Your task to perform on an android device: Open Chrome and go to the settings page Image 0: 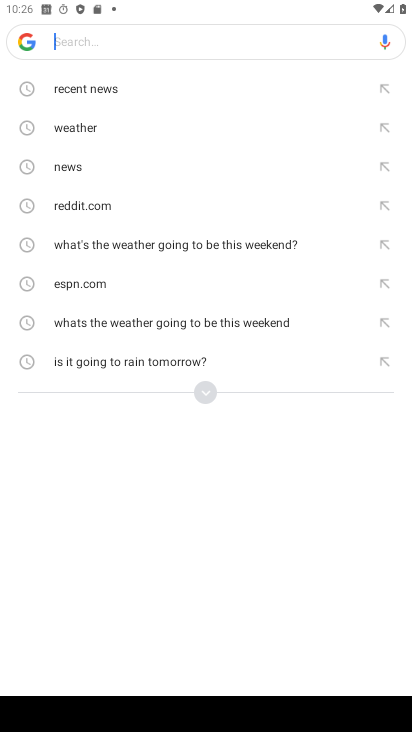
Step 0: press home button
Your task to perform on an android device: Open Chrome and go to the settings page Image 1: 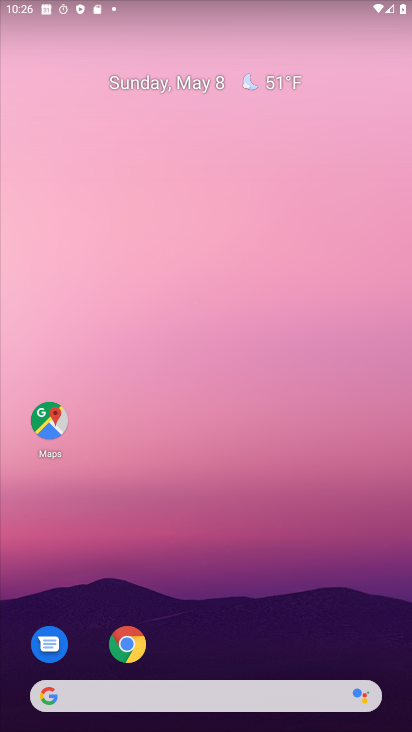
Step 1: click (133, 648)
Your task to perform on an android device: Open Chrome and go to the settings page Image 2: 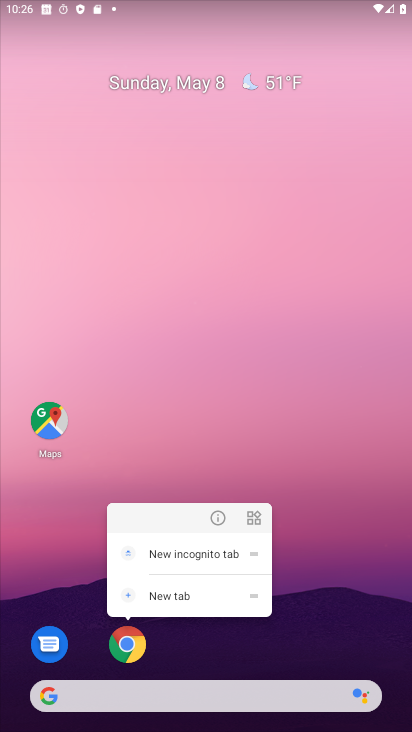
Step 2: click (213, 509)
Your task to perform on an android device: Open Chrome and go to the settings page Image 3: 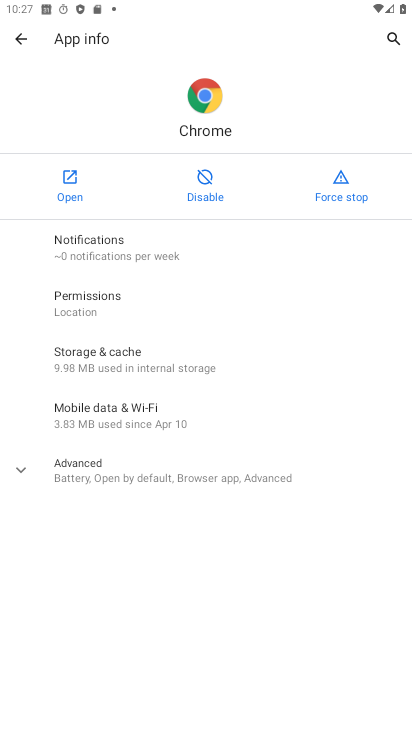
Step 3: click (71, 181)
Your task to perform on an android device: Open Chrome and go to the settings page Image 4: 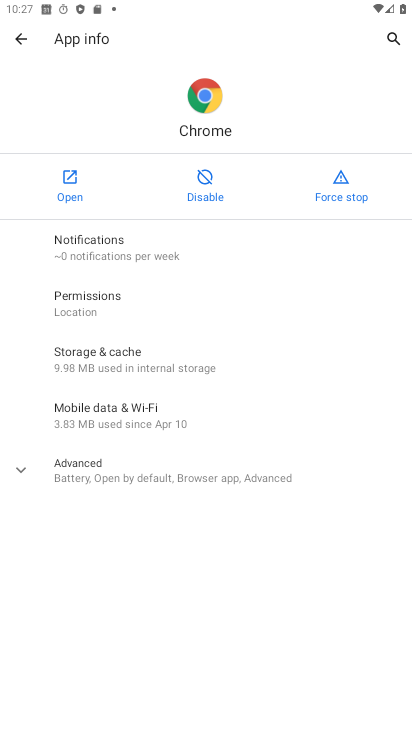
Step 4: click (71, 181)
Your task to perform on an android device: Open Chrome and go to the settings page Image 5: 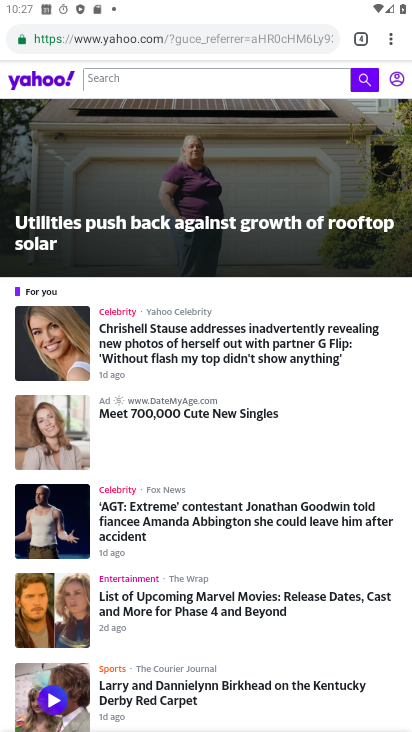
Step 5: task complete